Your task to perform on an android device: Play the last video I watched on Youtube Image 0: 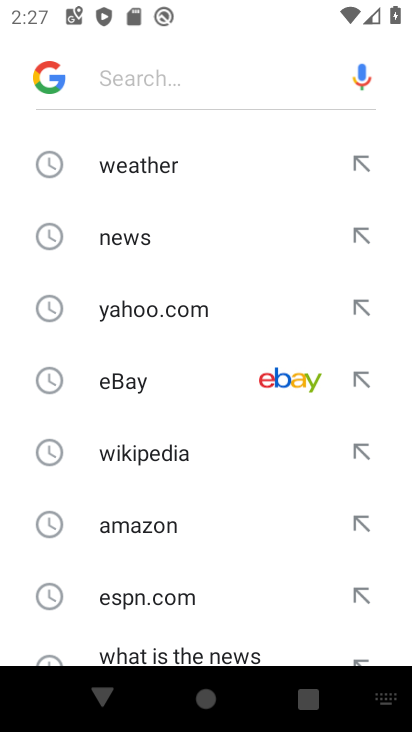
Step 0: press home button
Your task to perform on an android device: Play the last video I watched on Youtube Image 1: 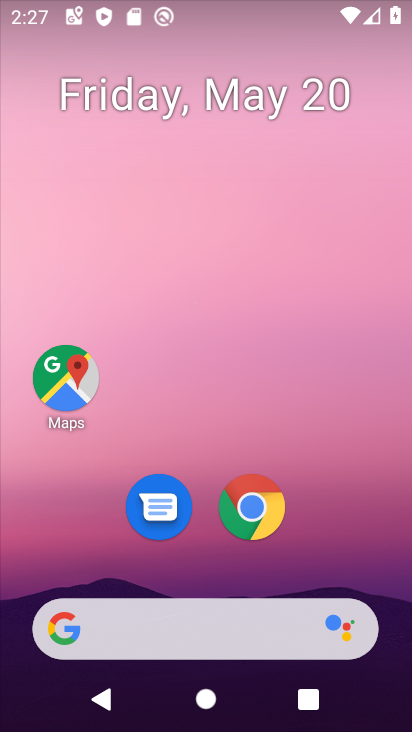
Step 1: drag from (228, 726) to (229, 85)
Your task to perform on an android device: Play the last video I watched on Youtube Image 2: 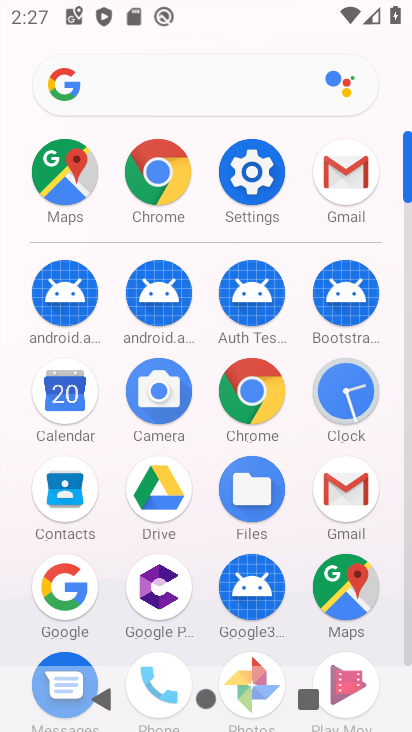
Step 2: drag from (298, 574) to (273, 37)
Your task to perform on an android device: Play the last video I watched on Youtube Image 3: 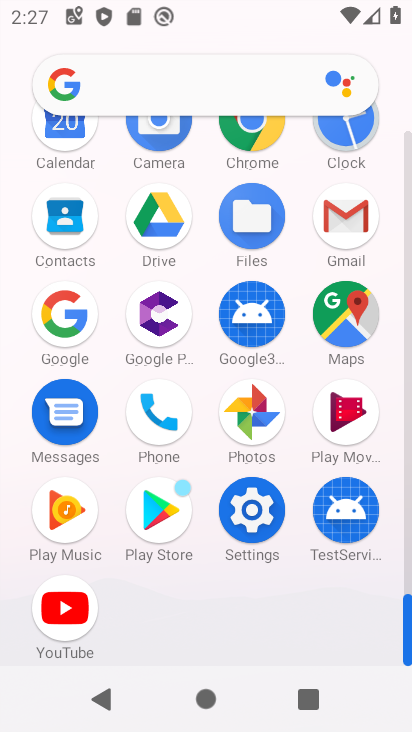
Step 3: click (62, 616)
Your task to perform on an android device: Play the last video I watched on Youtube Image 4: 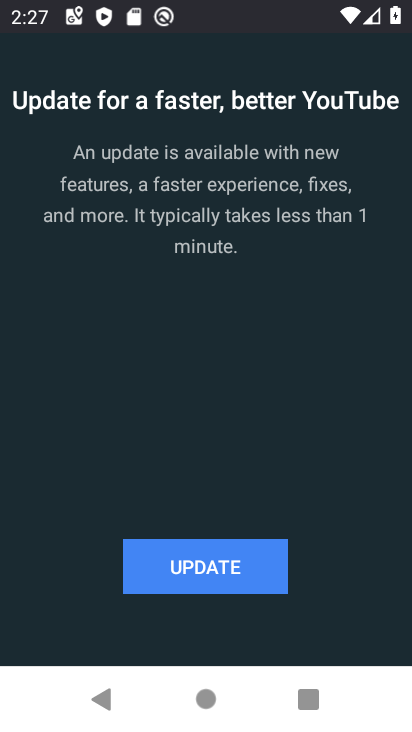
Step 4: click (184, 563)
Your task to perform on an android device: Play the last video I watched on Youtube Image 5: 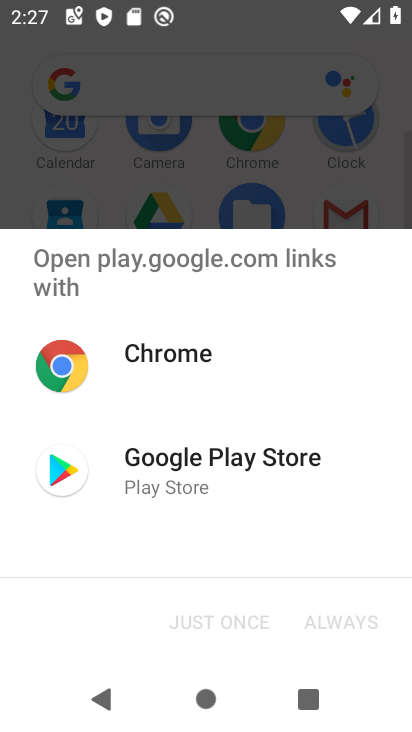
Step 5: click (162, 466)
Your task to perform on an android device: Play the last video I watched on Youtube Image 6: 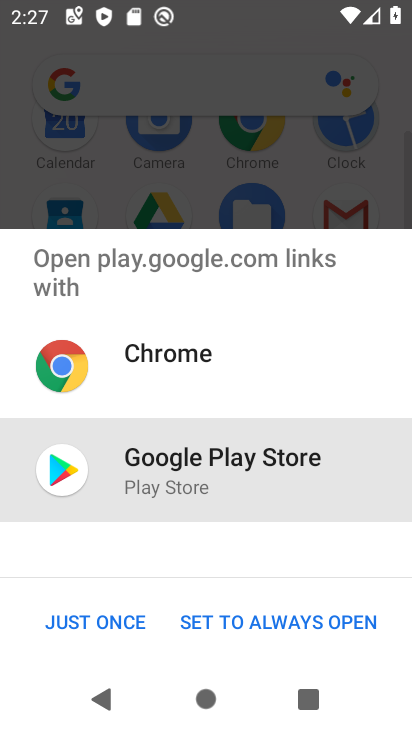
Step 6: click (126, 620)
Your task to perform on an android device: Play the last video I watched on Youtube Image 7: 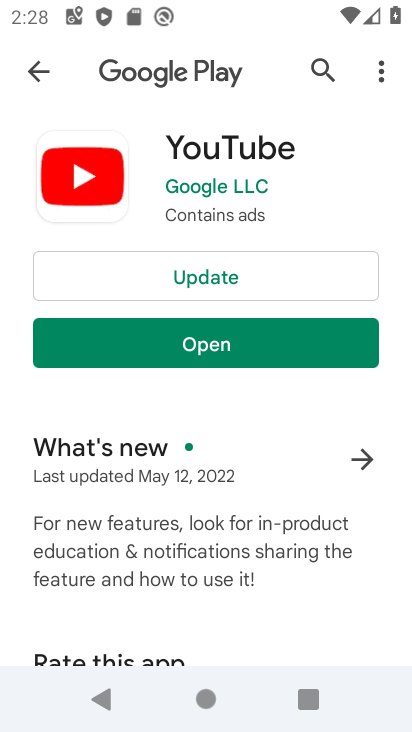
Step 7: click (199, 278)
Your task to perform on an android device: Play the last video I watched on Youtube Image 8: 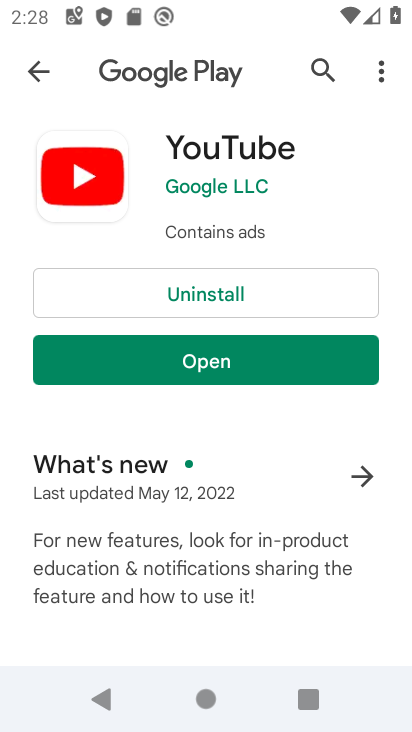
Step 8: click (189, 360)
Your task to perform on an android device: Play the last video I watched on Youtube Image 9: 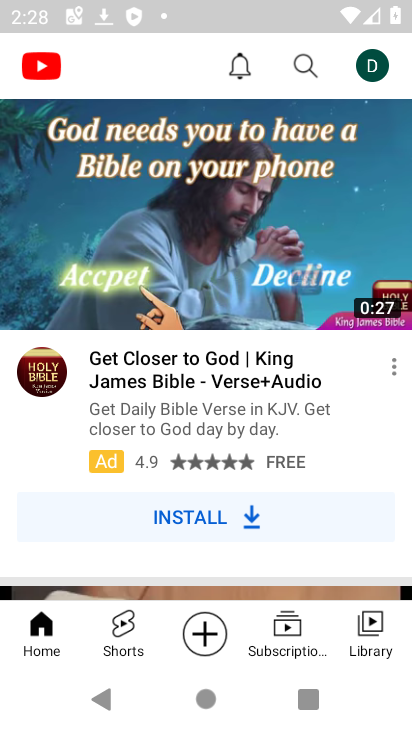
Step 9: click (366, 635)
Your task to perform on an android device: Play the last video I watched on Youtube Image 10: 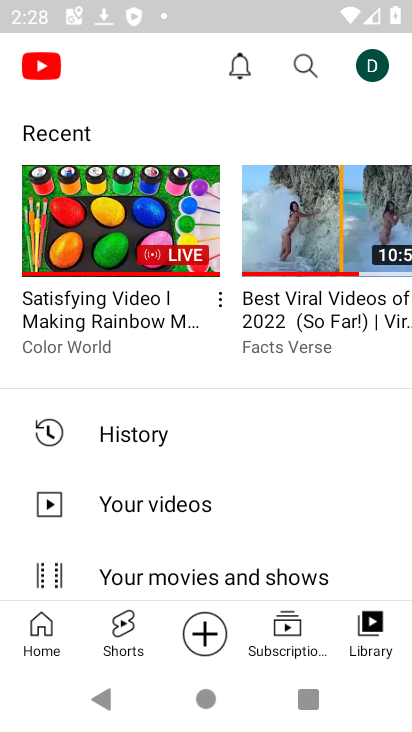
Step 10: click (366, 635)
Your task to perform on an android device: Play the last video I watched on Youtube Image 11: 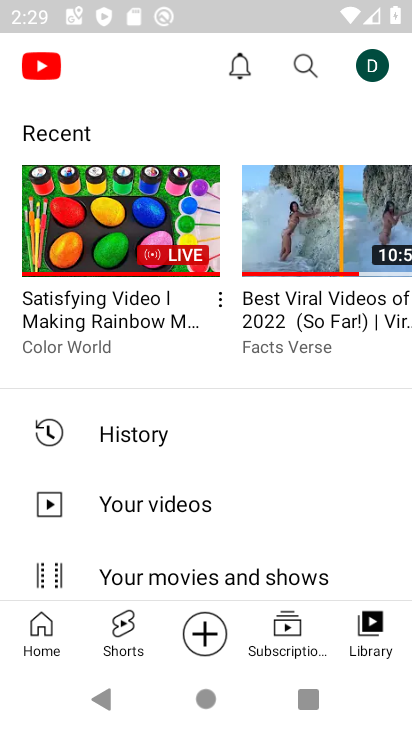
Step 11: click (96, 228)
Your task to perform on an android device: Play the last video I watched on Youtube Image 12: 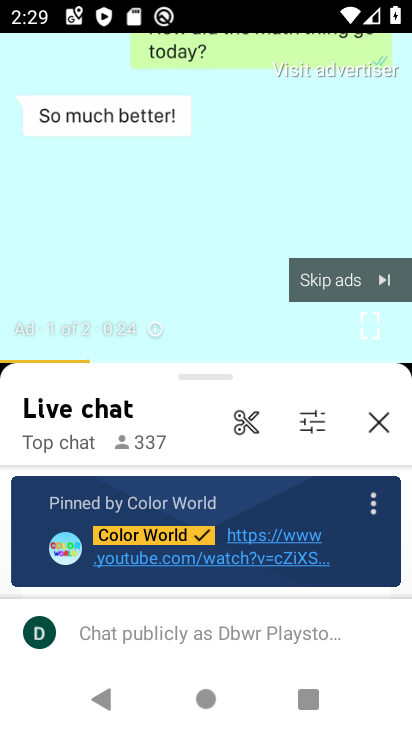
Step 12: click (339, 277)
Your task to perform on an android device: Play the last video I watched on Youtube Image 13: 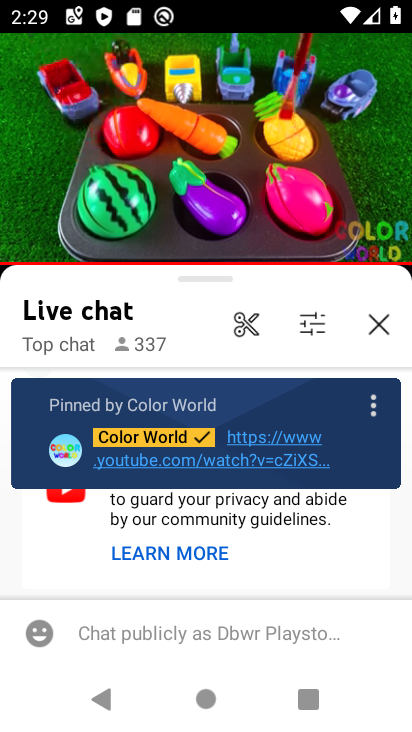
Step 13: task complete